Your task to perform on an android device: check battery use Image 0: 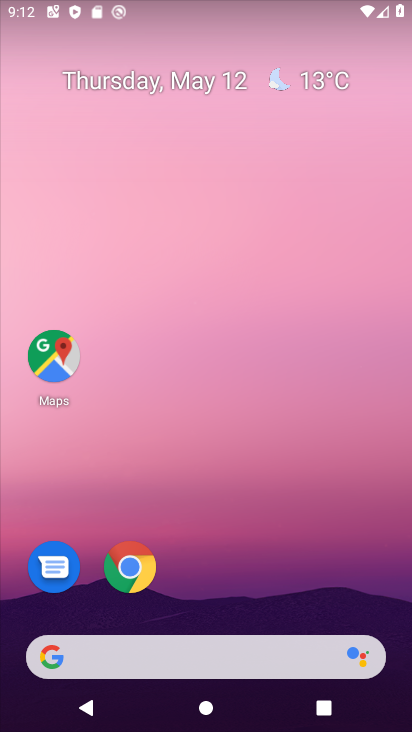
Step 0: press home button
Your task to perform on an android device: check battery use Image 1: 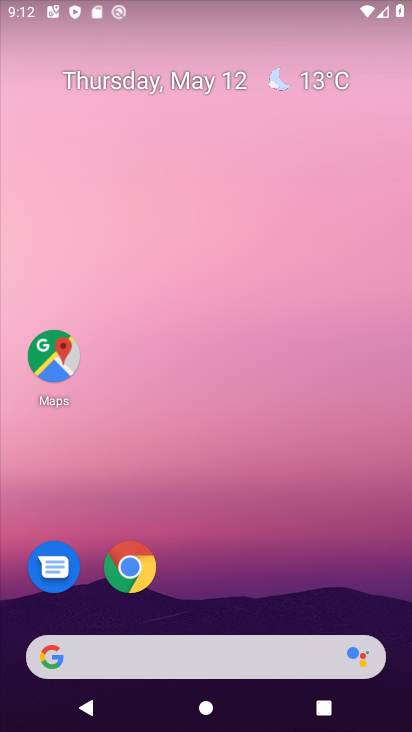
Step 1: drag from (225, 608) to (244, 63)
Your task to perform on an android device: check battery use Image 2: 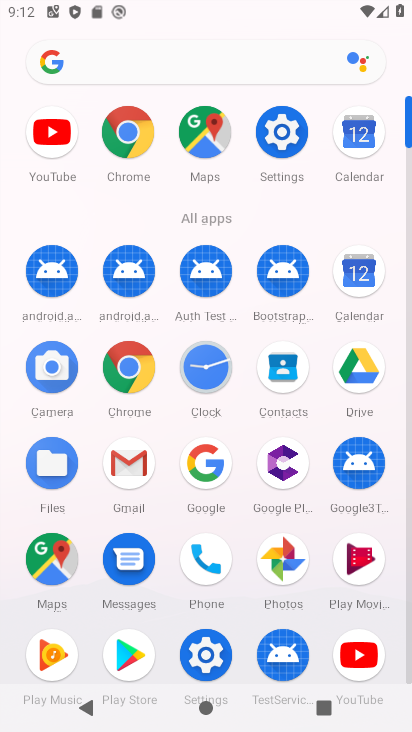
Step 2: click (284, 129)
Your task to perform on an android device: check battery use Image 3: 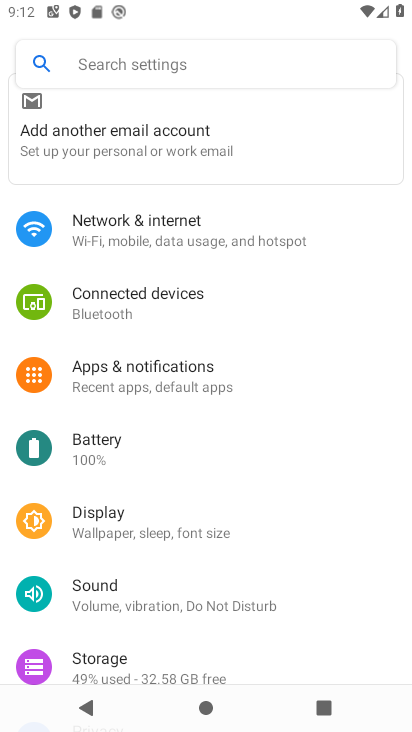
Step 3: click (140, 441)
Your task to perform on an android device: check battery use Image 4: 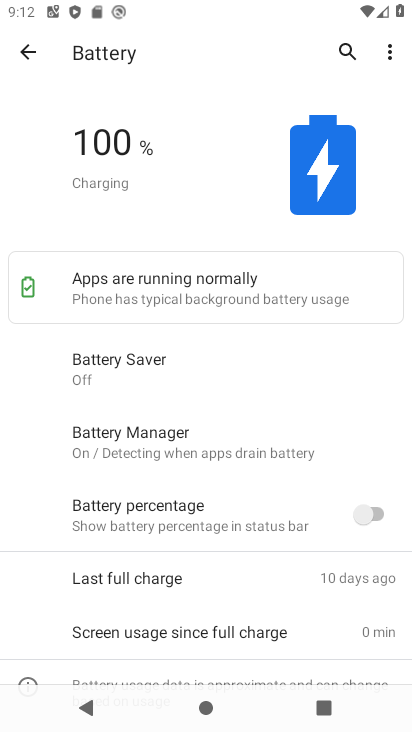
Step 4: click (386, 55)
Your task to perform on an android device: check battery use Image 5: 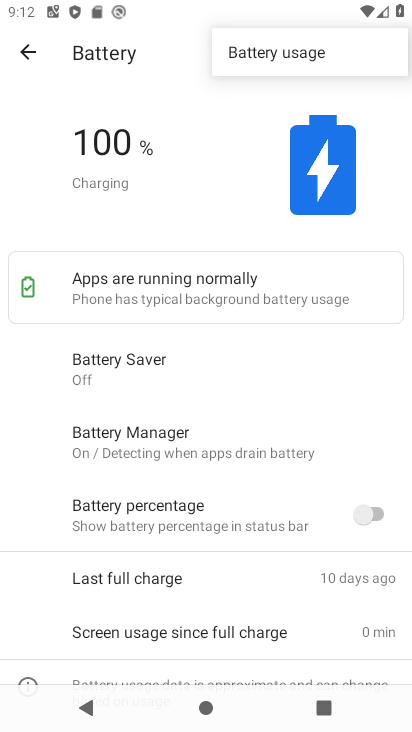
Step 5: click (268, 59)
Your task to perform on an android device: check battery use Image 6: 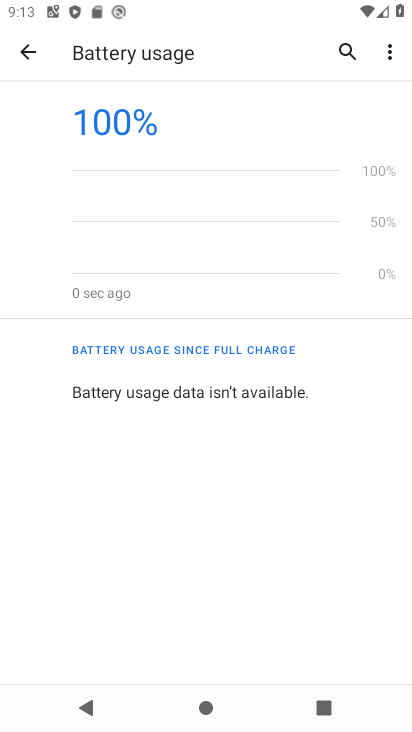
Step 6: task complete